Your task to perform on an android device: Search for Mexican restaurants on Maps Image 0: 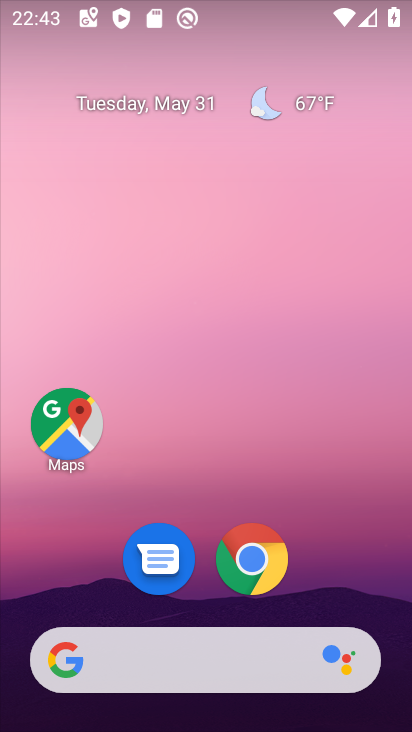
Step 0: click (53, 431)
Your task to perform on an android device: Search for Mexican restaurants on Maps Image 1: 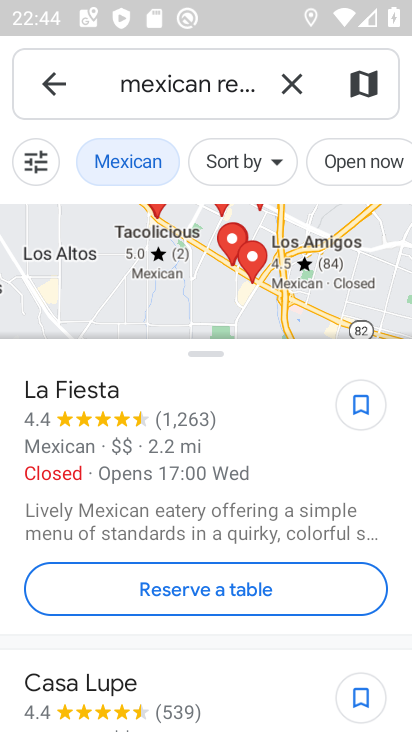
Step 1: task complete